Your task to perform on an android device: delete location history Image 0: 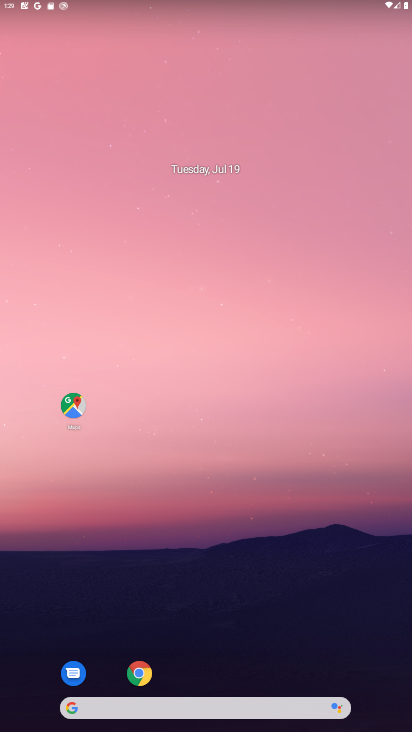
Step 0: click (73, 403)
Your task to perform on an android device: delete location history Image 1: 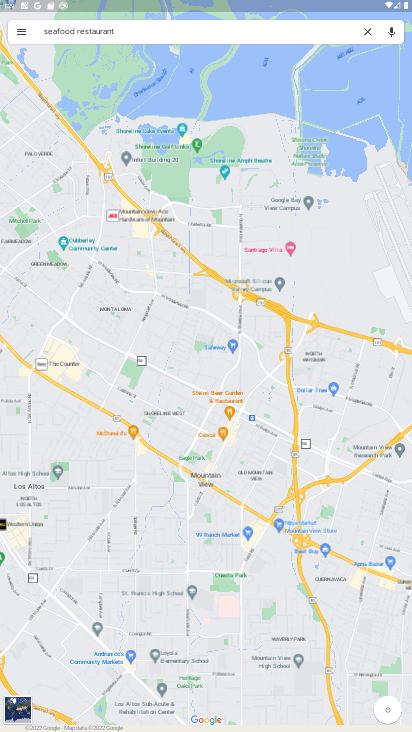
Step 1: click (19, 32)
Your task to perform on an android device: delete location history Image 2: 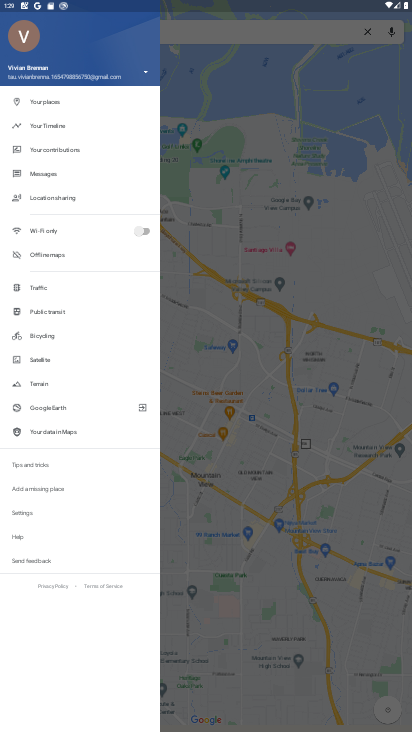
Step 2: click (54, 122)
Your task to perform on an android device: delete location history Image 3: 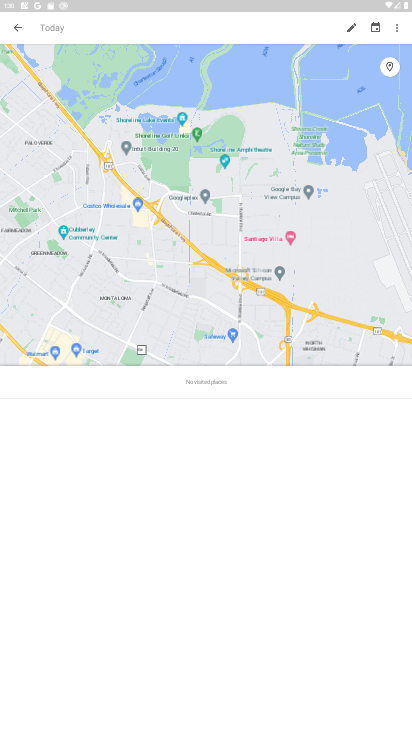
Step 3: click (404, 26)
Your task to perform on an android device: delete location history Image 4: 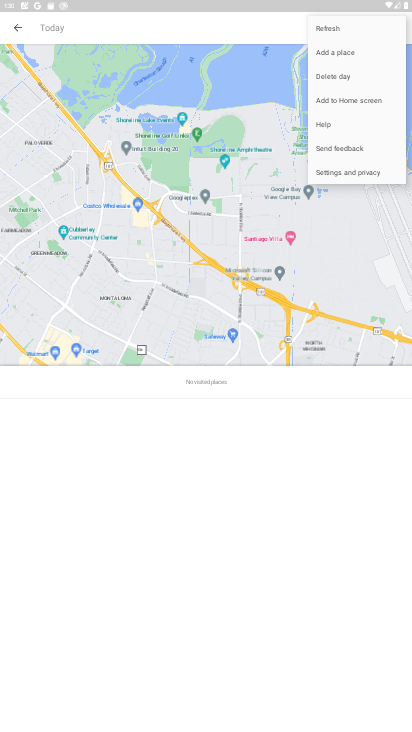
Step 4: click (345, 176)
Your task to perform on an android device: delete location history Image 5: 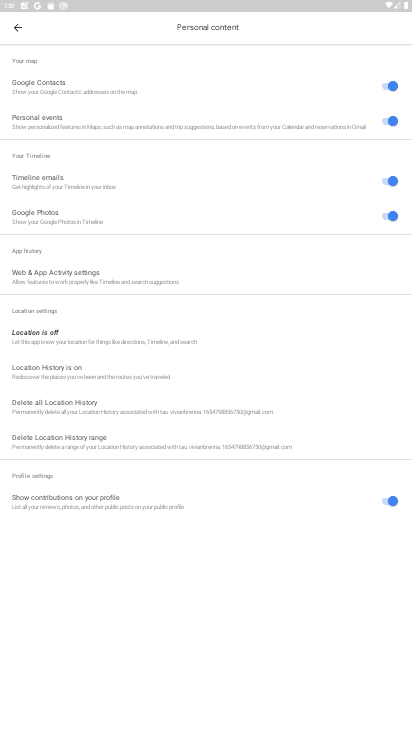
Step 5: click (95, 403)
Your task to perform on an android device: delete location history Image 6: 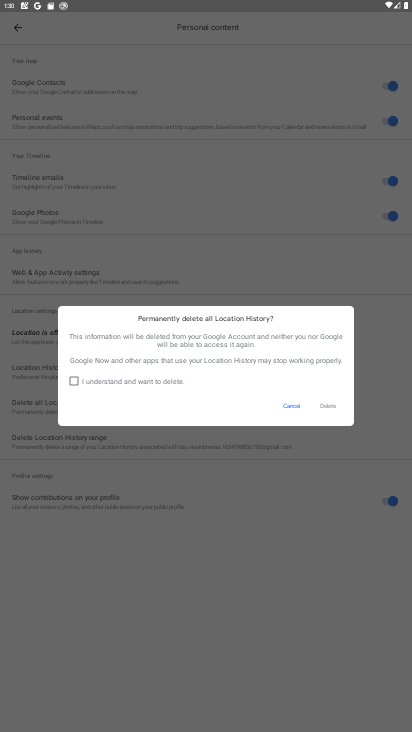
Step 6: click (106, 383)
Your task to perform on an android device: delete location history Image 7: 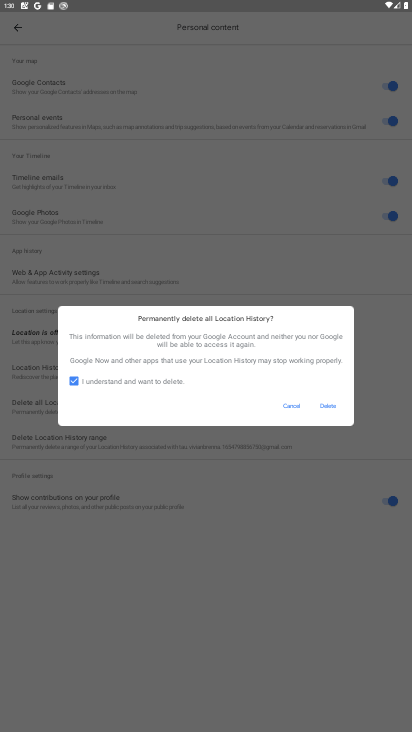
Step 7: click (328, 404)
Your task to perform on an android device: delete location history Image 8: 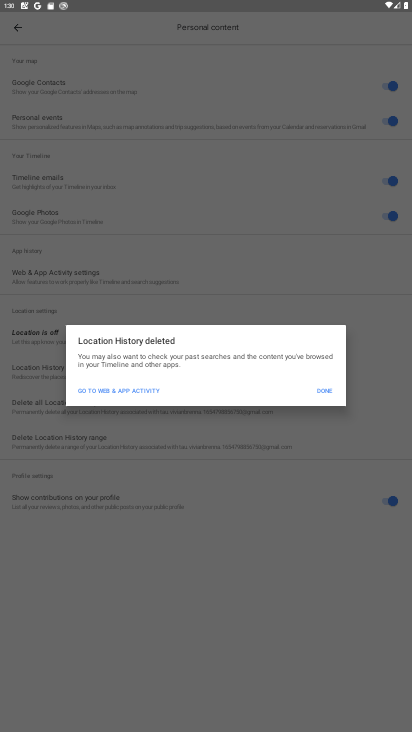
Step 8: click (327, 393)
Your task to perform on an android device: delete location history Image 9: 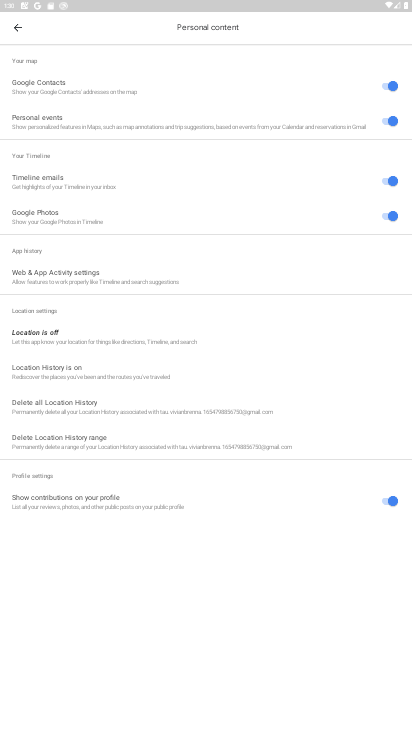
Step 9: task complete